Your task to perform on an android device: Show me some nice wallpapers for my tablet Image 0: 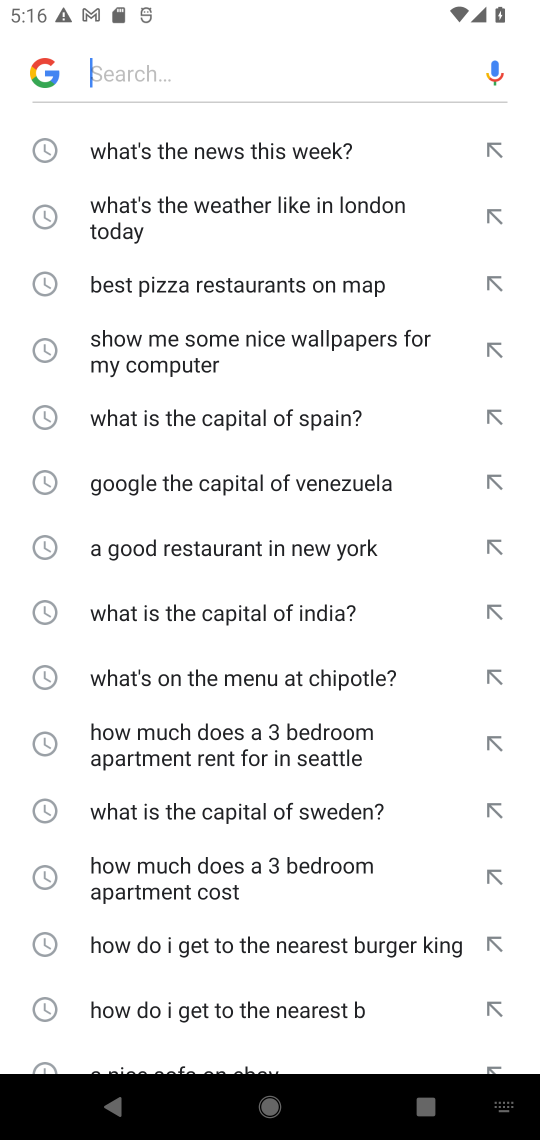
Step 0: press home button
Your task to perform on an android device: Show me some nice wallpapers for my tablet Image 1: 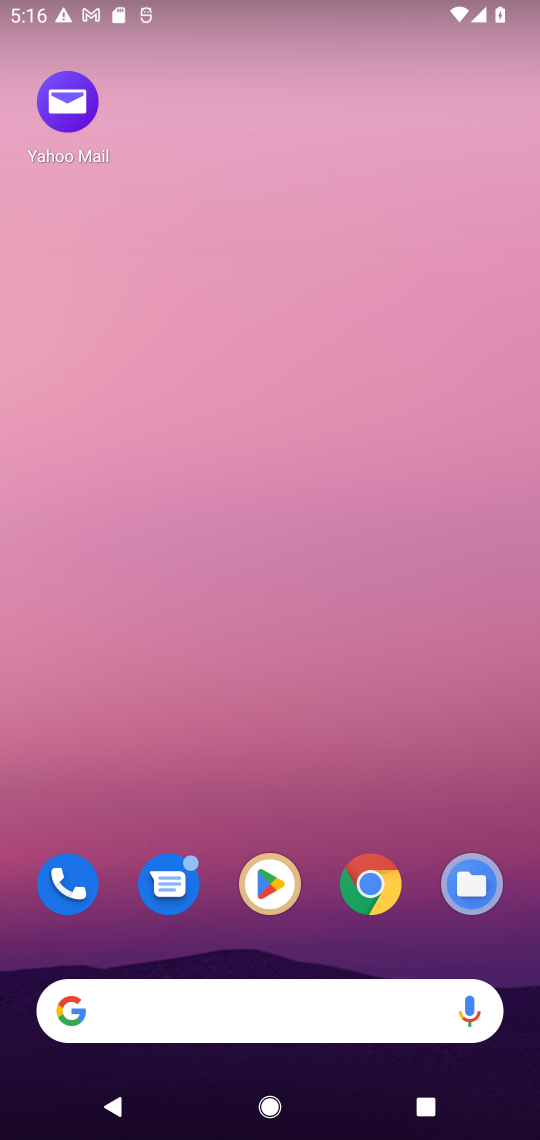
Step 1: drag from (333, 964) to (267, 75)
Your task to perform on an android device: Show me some nice wallpapers for my tablet Image 2: 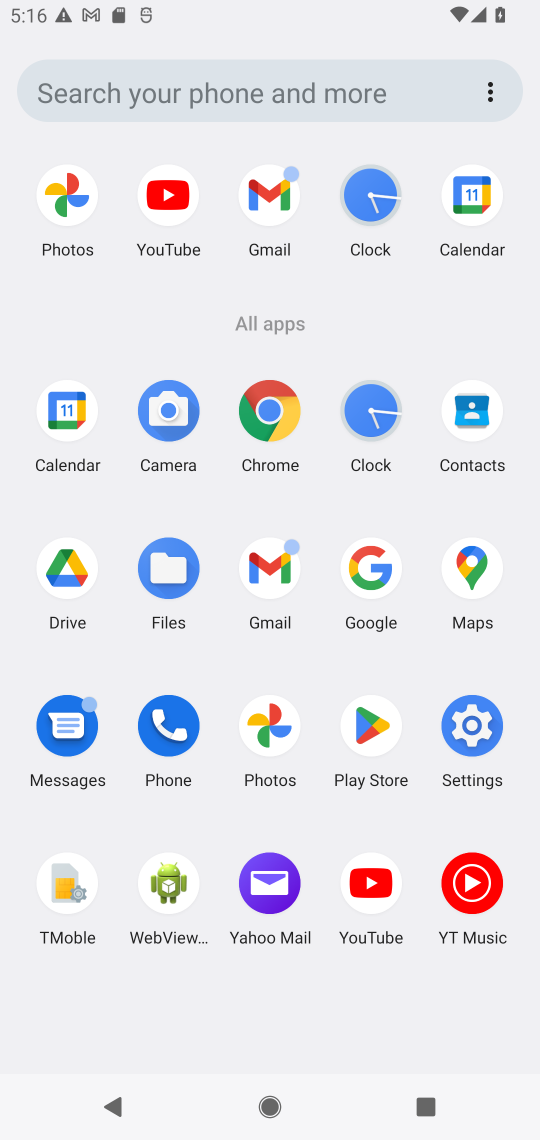
Step 2: click (365, 572)
Your task to perform on an android device: Show me some nice wallpapers for my tablet Image 3: 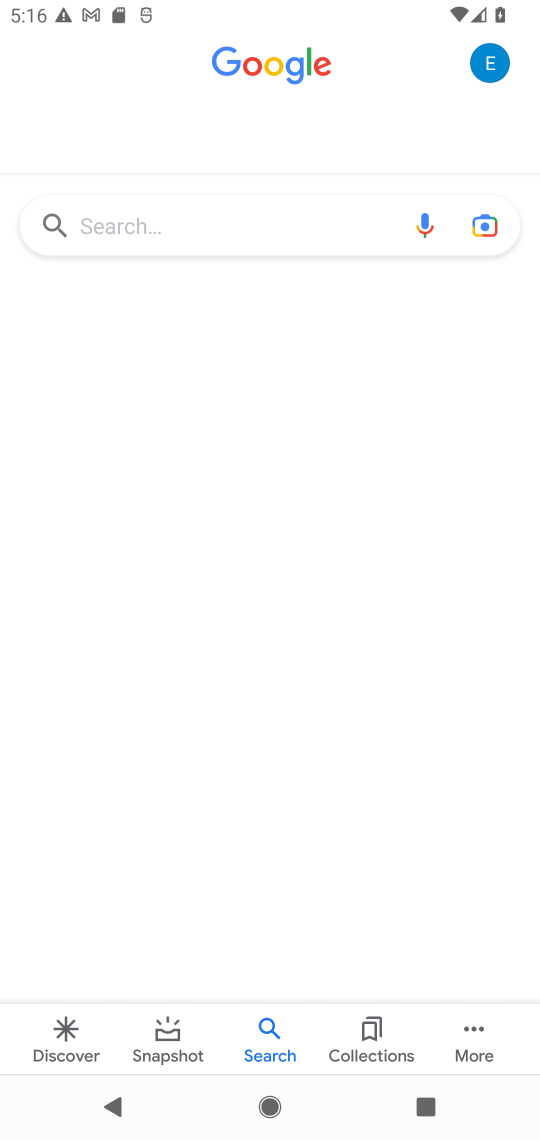
Step 3: click (252, 216)
Your task to perform on an android device: Show me some nice wallpapers for my tablet Image 4: 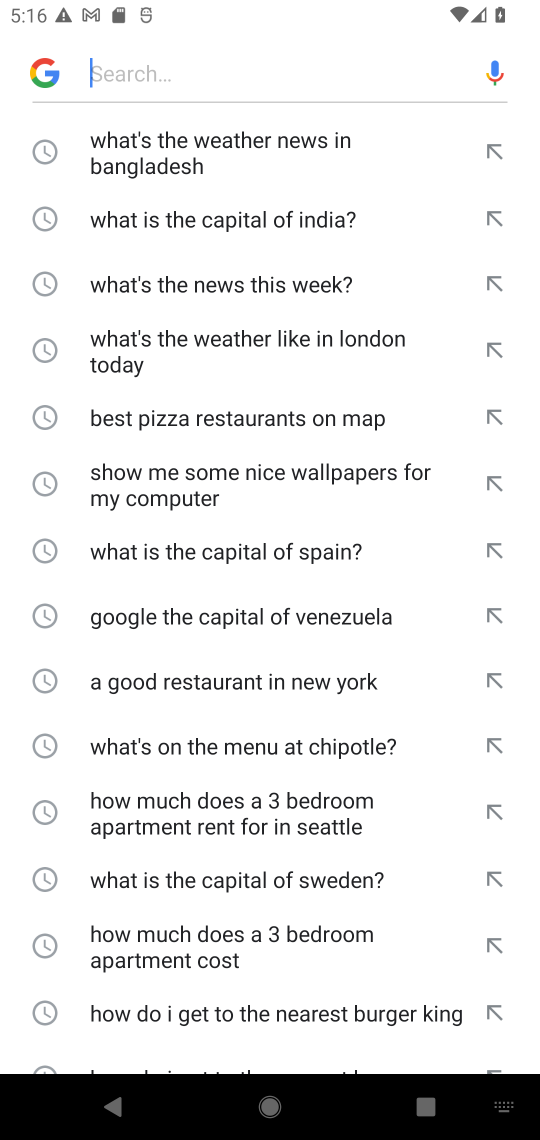
Step 4: type "Show me some nice wallpapers for my tablet"
Your task to perform on an android device: Show me some nice wallpapers for my tablet Image 5: 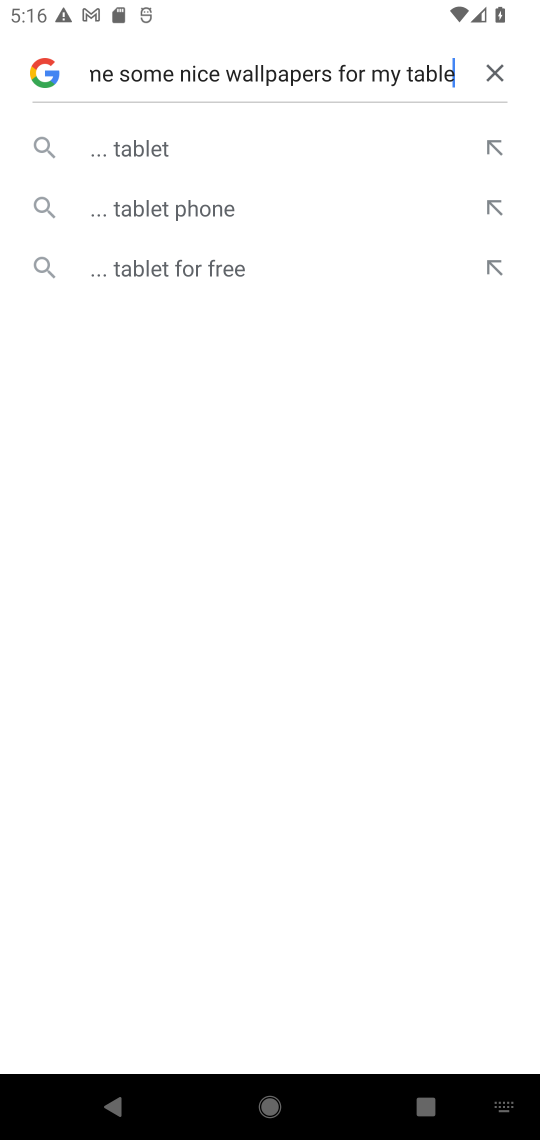
Step 5: type ""
Your task to perform on an android device: Show me some nice wallpapers for my tablet Image 6: 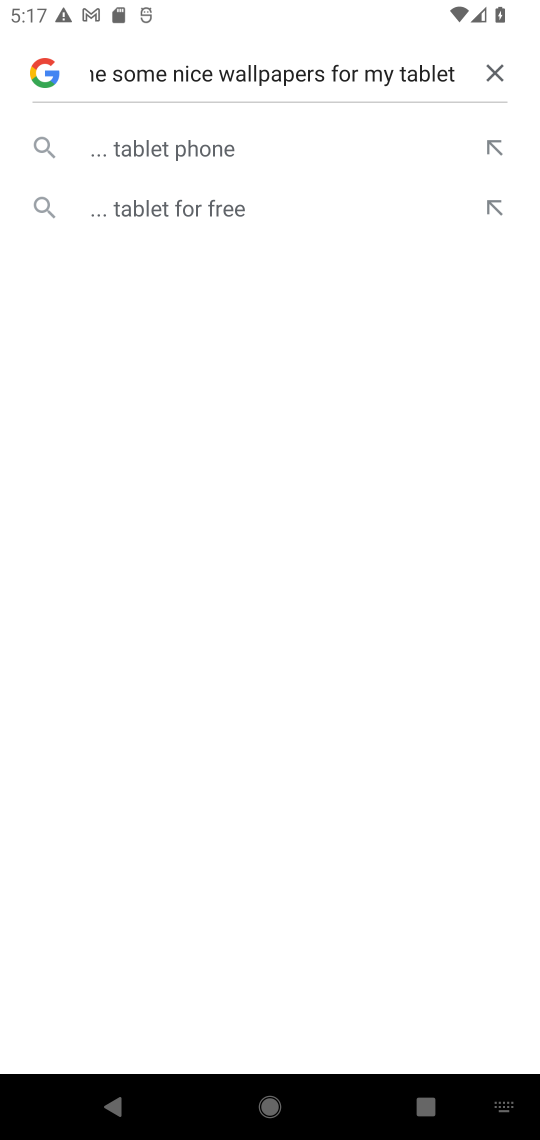
Step 6: click (177, 157)
Your task to perform on an android device: Show me some nice wallpapers for my tablet Image 7: 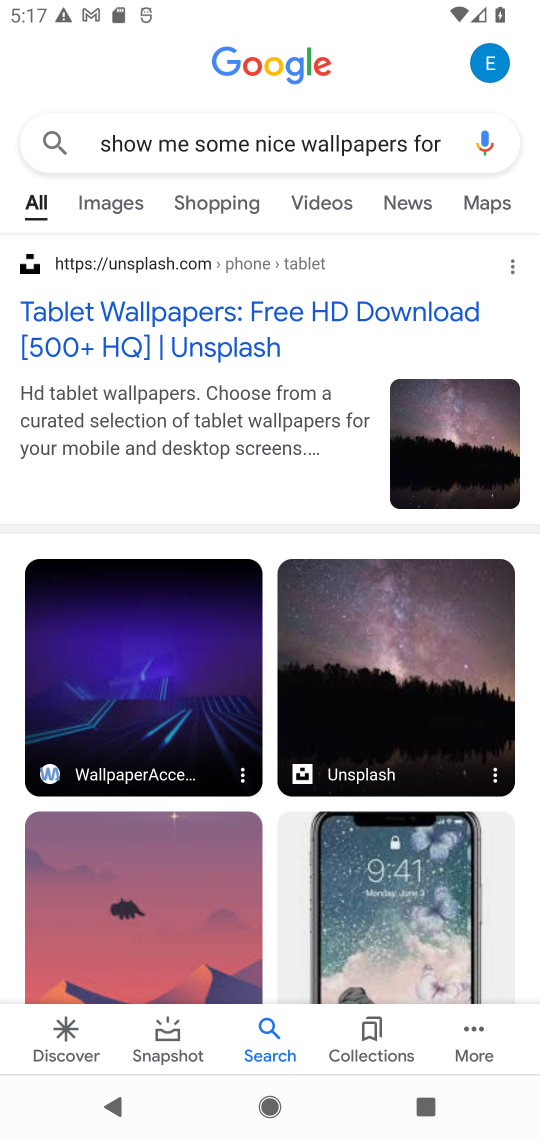
Step 7: click (257, 332)
Your task to perform on an android device: Show me some nice wallpapers for my tablet Image 8: 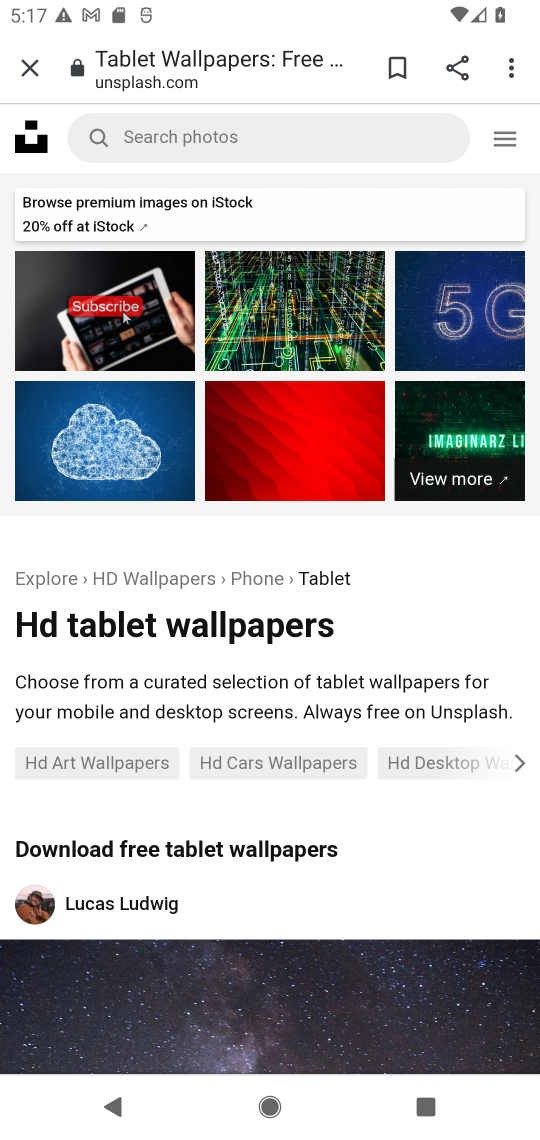
Step 8: task complete